Your task to perform on an android device: open the mobile data screen to see how much data has been used Image 0: 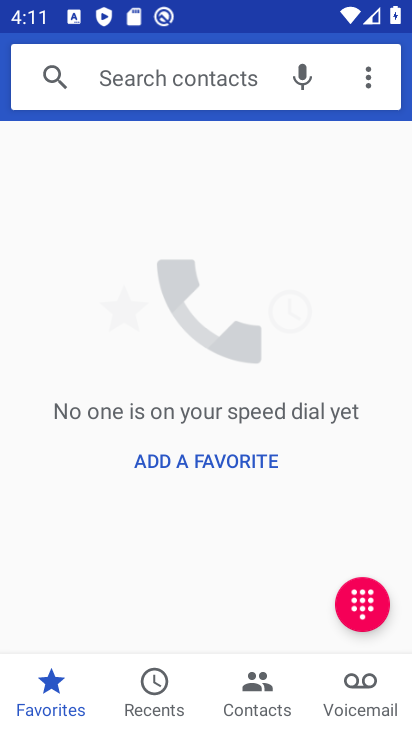
Step 0: press home button
Your task to perform on an android device: open the mobile data screen to see how much data has been used Image 1: 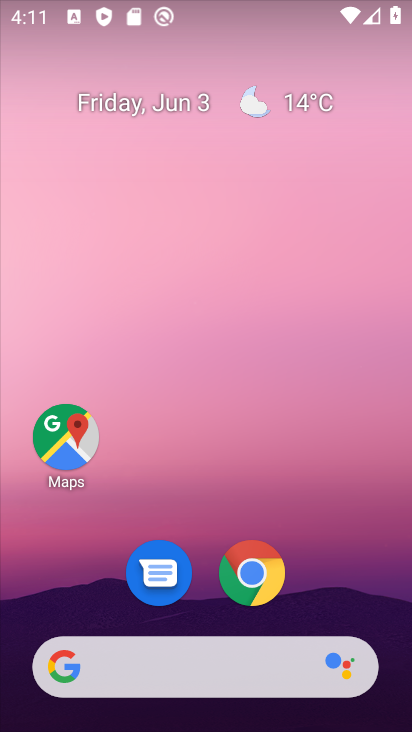
Step 1: drag from (358, 640) to (411, 605)
Your task to perform on an android device: open the mobile data screen to see how much data has been used Image 2: 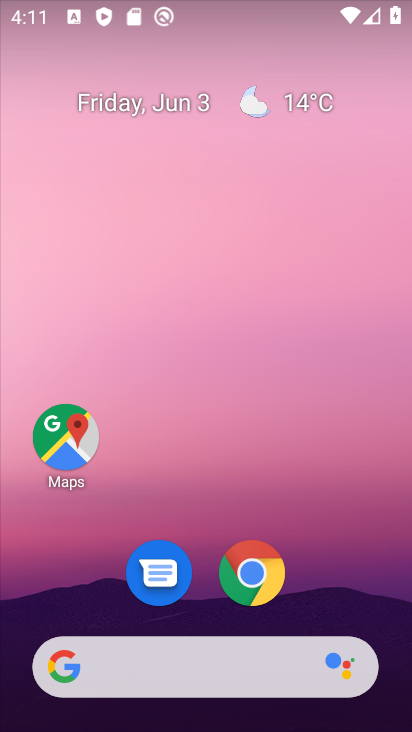
Step 2: drag from (310, 581) to (410, 220)
Your task to perform on an android device: open the mobile data screen to see how much data has been used Image 3: 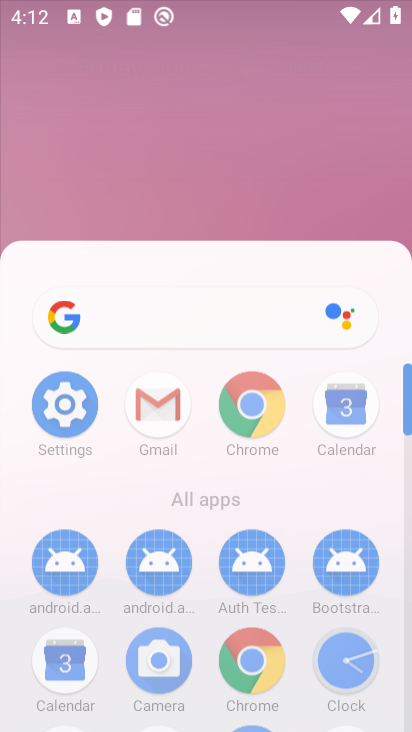
Step 3: press home button
Your task to perform on an android device: open the mobile data screen to see how much data has been used Image 4: 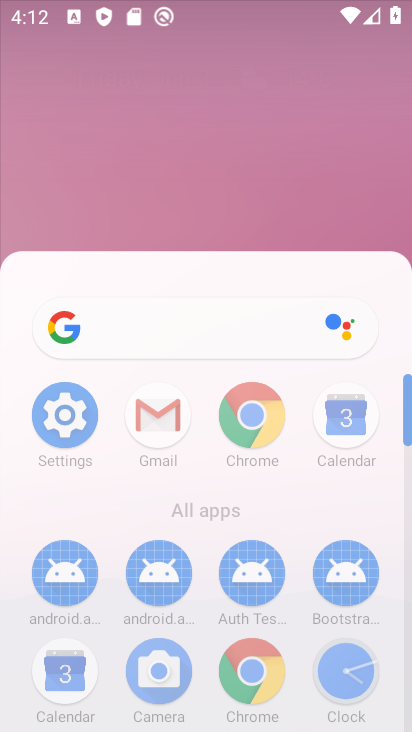
Step 4: drag from (410, 220) to (405, 601)
Your task to perform on an android device: open the mobile data screen to see how much data has been used Image 5: 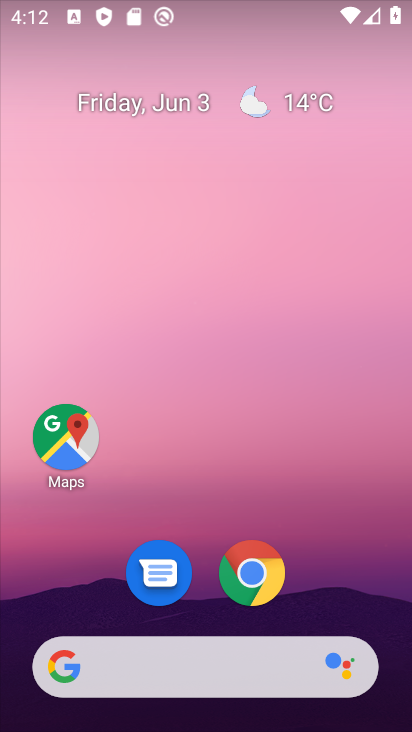
Step 5: drag from (333, 616) to (358, 24)
Your task to perform on an android device: open the mobile data screen to see how much data has been used Image 6: 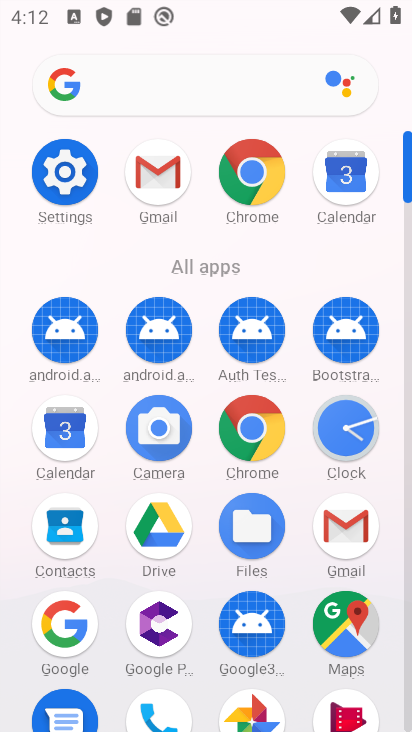
Step 6: click (257, 415)
Your task to perform on an android device: open the mobile data screen to see how much data has been used Image 7: 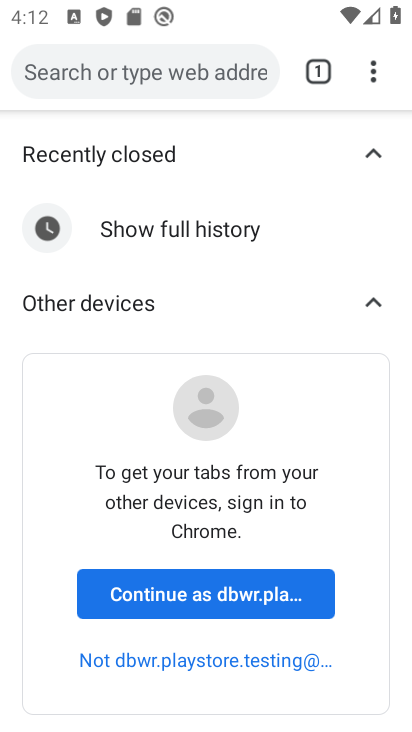
Step 7: drag from (367, 69) to (315, 461)
Your task to perform on an android device: open the mobile data screen to see how much data has been used Image 8: 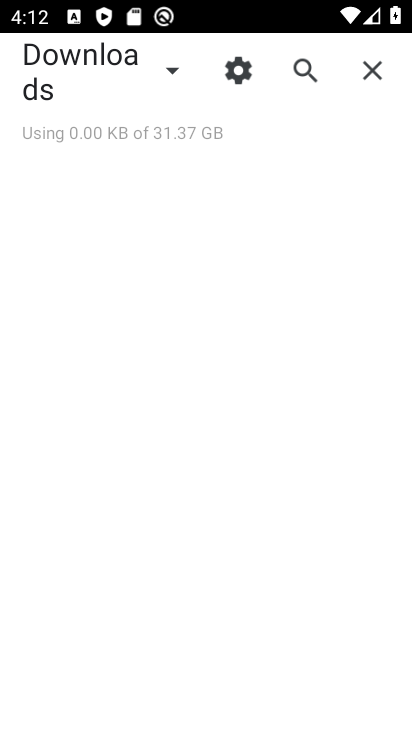
Step 8: press home button
Your task to perform on an android device: open the mobile data screen to see how much data has been used Image 9: 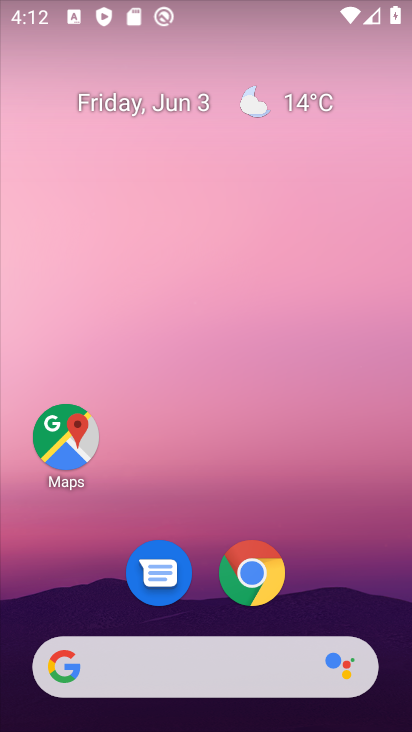
Step 9: drag from (302, 600) to (354, 0)
Your task to perform on an android device: open the mobile data screen to see how much data has been used Image 10: 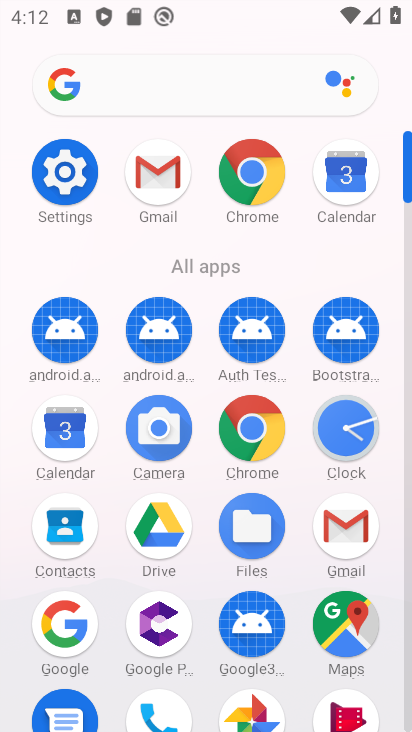
Step 10: click (61, 189)
Your task to perform on an android device: open the mobile data screen to see how much data has been used Image 11: 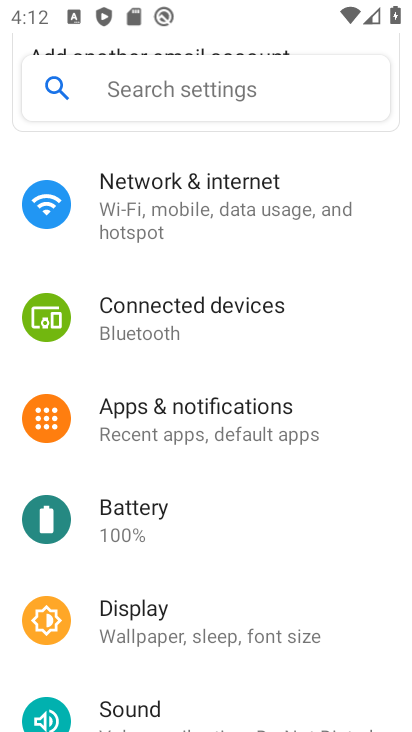
Step 11: drag from (226, 651) to (253, 276)
Your task to perform on an android device: open the mobile data screen to see how much data has been used Image 12: 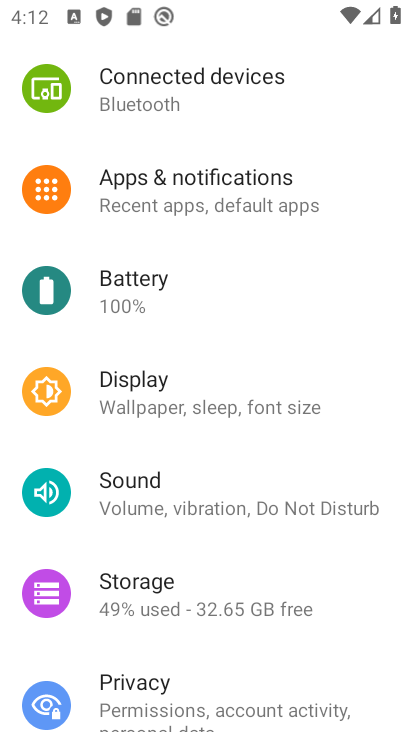
Step 12: drag from (309, 606) to (327, 228)
Your task to perform on an android device: open the mobile data screen to see how much data has been used Image 13: 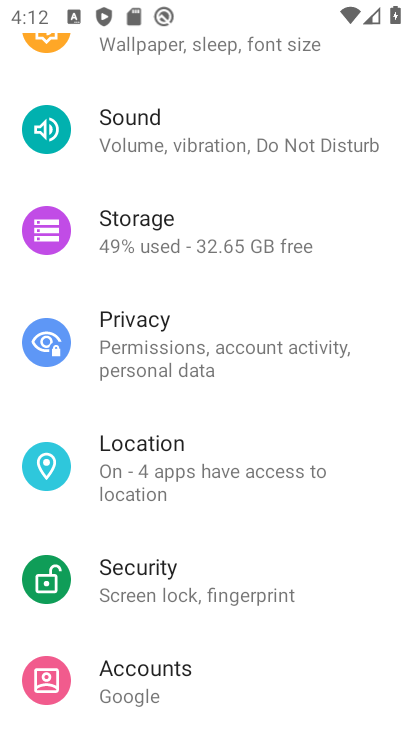
Step 13: drag from (316, 287) to (331, 596)
Your task to perform on an android device: open the mobile data screen to see how much data has been used Image 14: 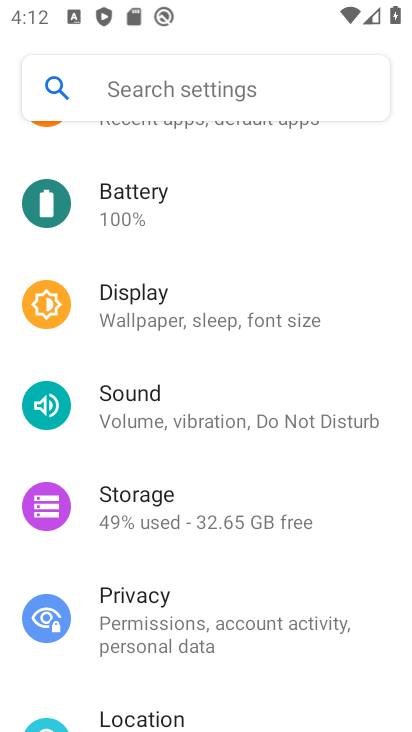
Step 14: drag from (307, 354) to (277, 703)
Your task to perform on an android device: open the mobile data screen to see how much data has been used Image 15: 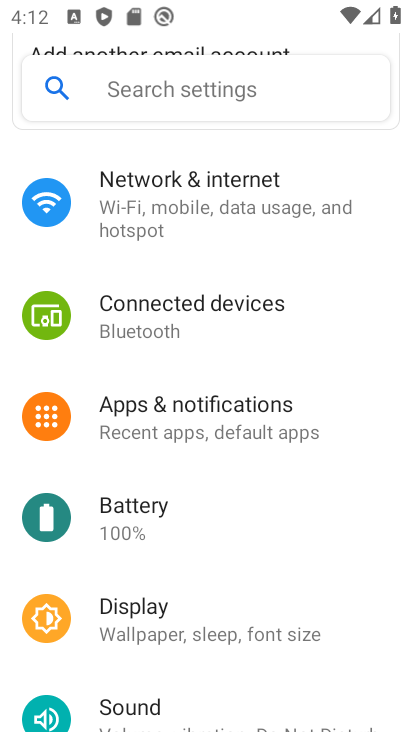
Step 15: click (252, 222)
Your task to perform on an android device: open the mobile data screen to see how much data has been used Image 16: 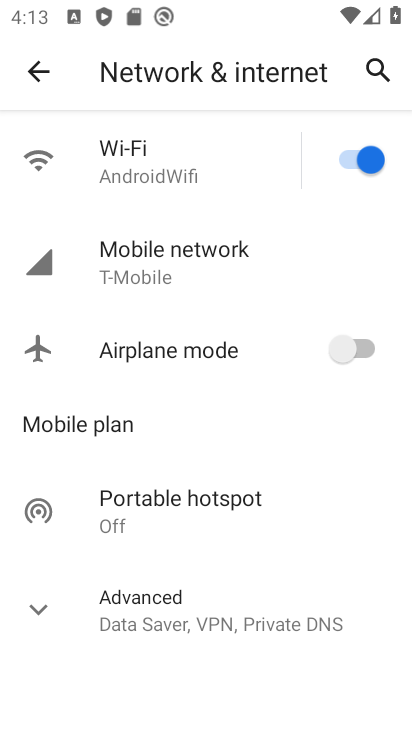
Step 16: task complete